Your task to perform on an android device: Do I have any events today? Image 0: 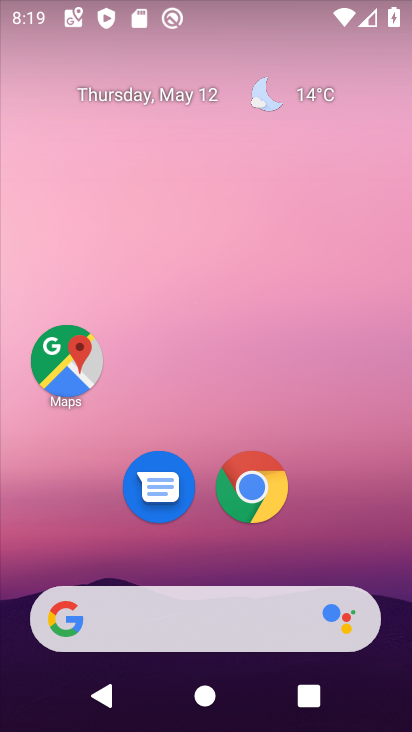
Step 0: drag from (383, 576) to (281, 0)
Your task to perform on an android device: Do I have any events today? Image 1: 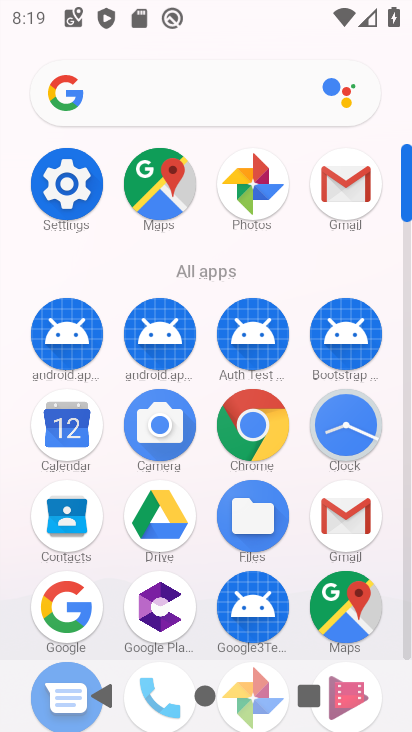
Step 1: click (60, 432)
Your task to perform on an android device: Do I have any events today? Image 2: 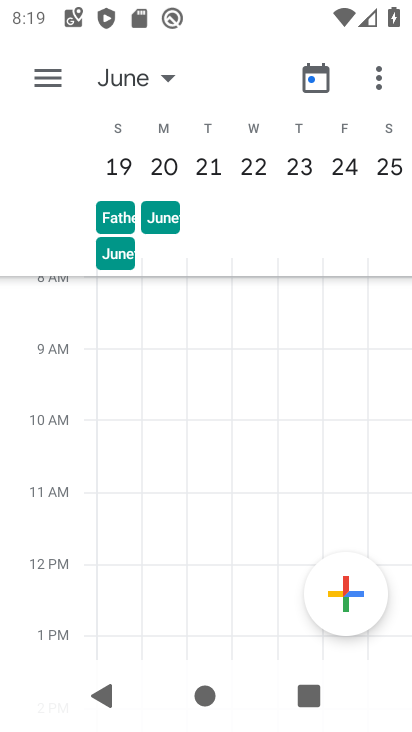
Step 2: click (315, 81)
Your task to perform on an android device: Do I have any events today? Image 3: 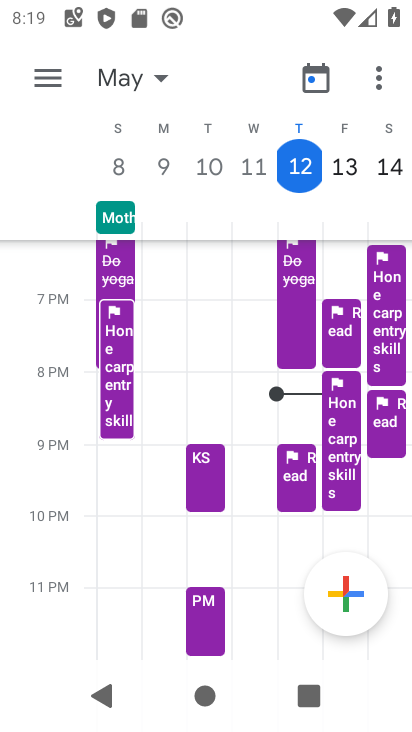
Step 3: click (63, 78)
Your task to perform on an android device: Do I have any events today? Image 4: 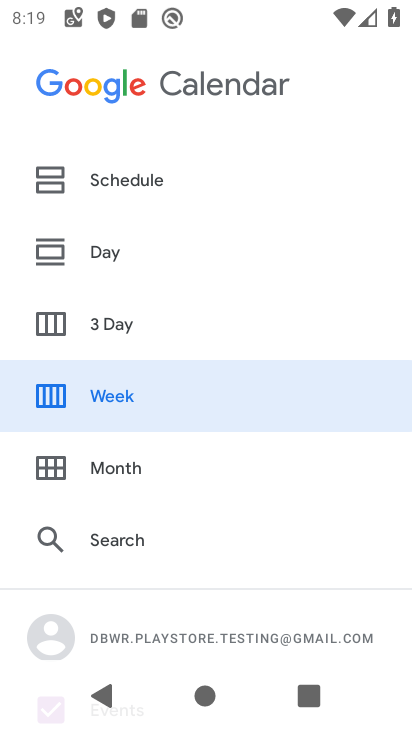
Step 4: click (100, 180)
Your task to perform on an android device: Do I have any events today? Image 5: 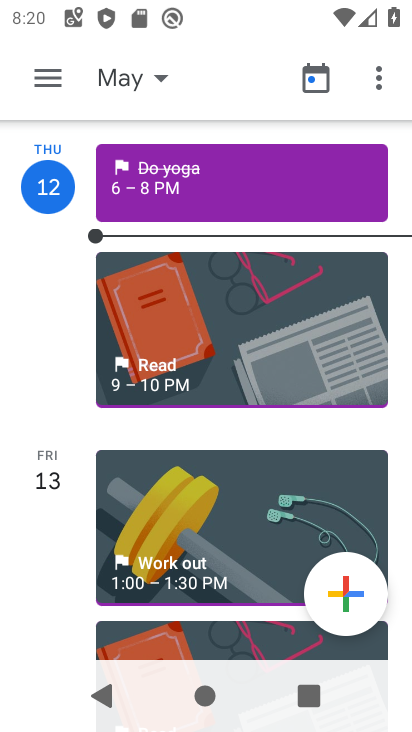
Step 5: click (190, 205)
Your task to perform on an android device: Do I have any events today? Image 6: 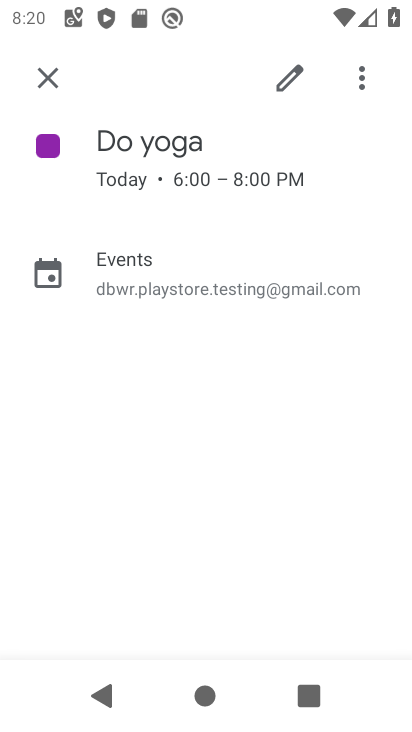
Step 6: task complete